Your task to perform on an android device: Play the latest video from the BBC Image 0: 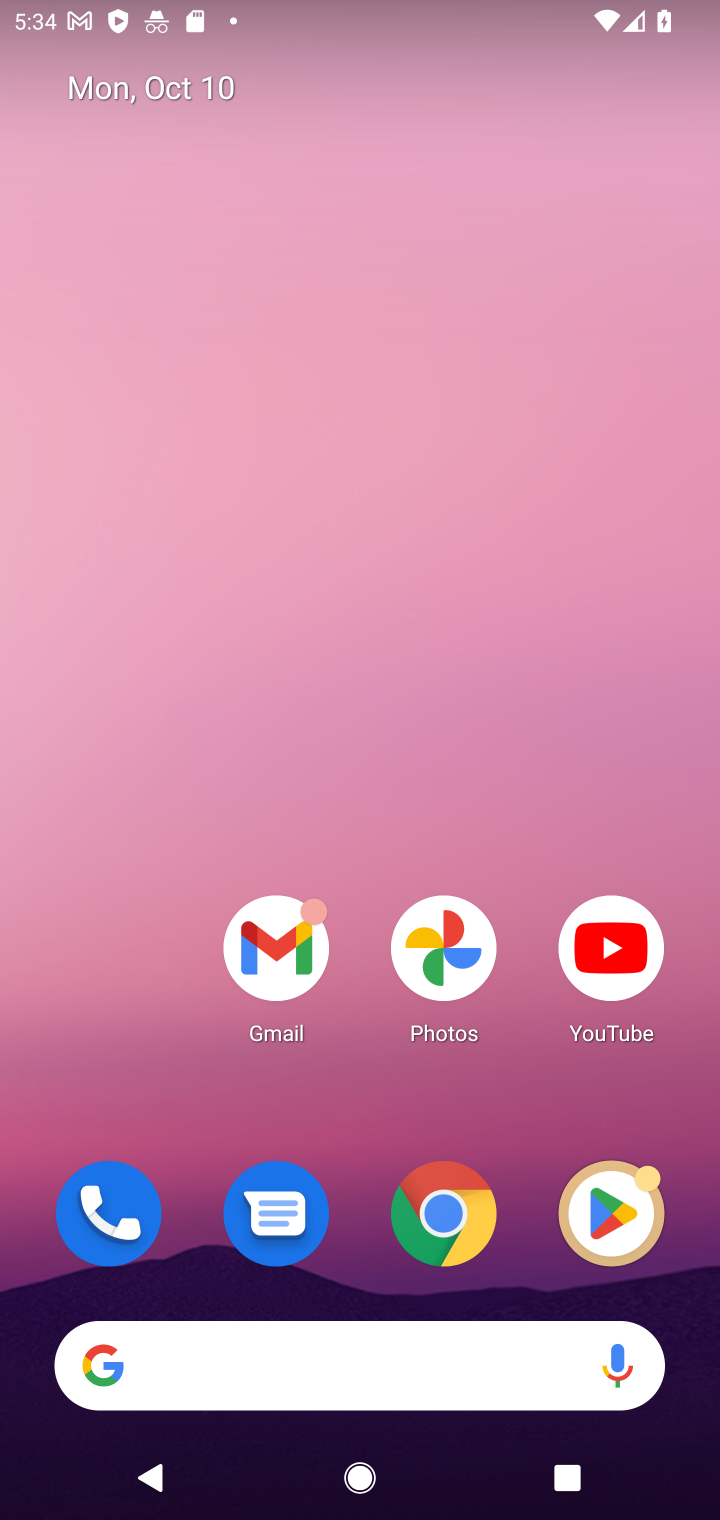
Step 0: click (603, 929)
Your task to perform on an android device: Play the latest video from the BBC Image 1: 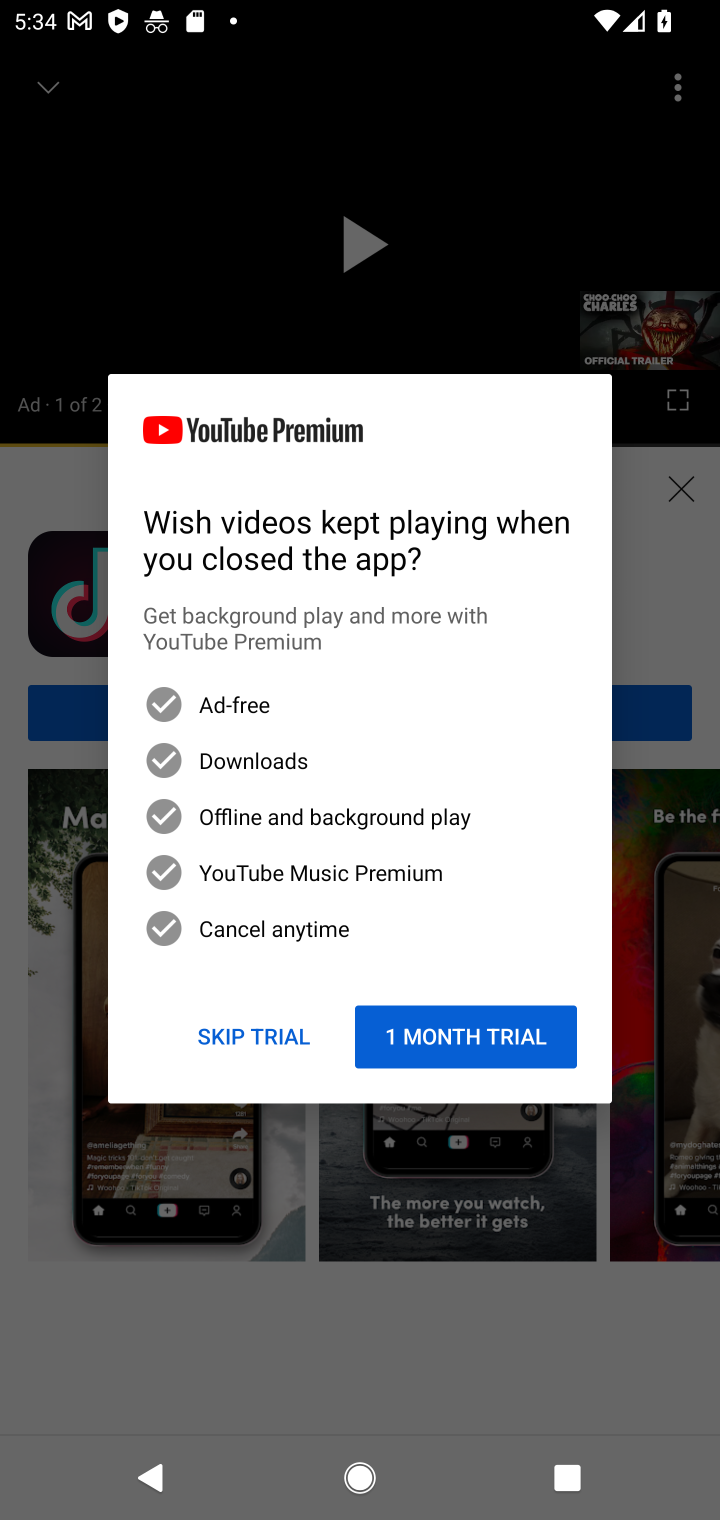
Step 1: click (257, 1044)
Your task to perform on an android device: Play the latest video from the BBC Image 2: 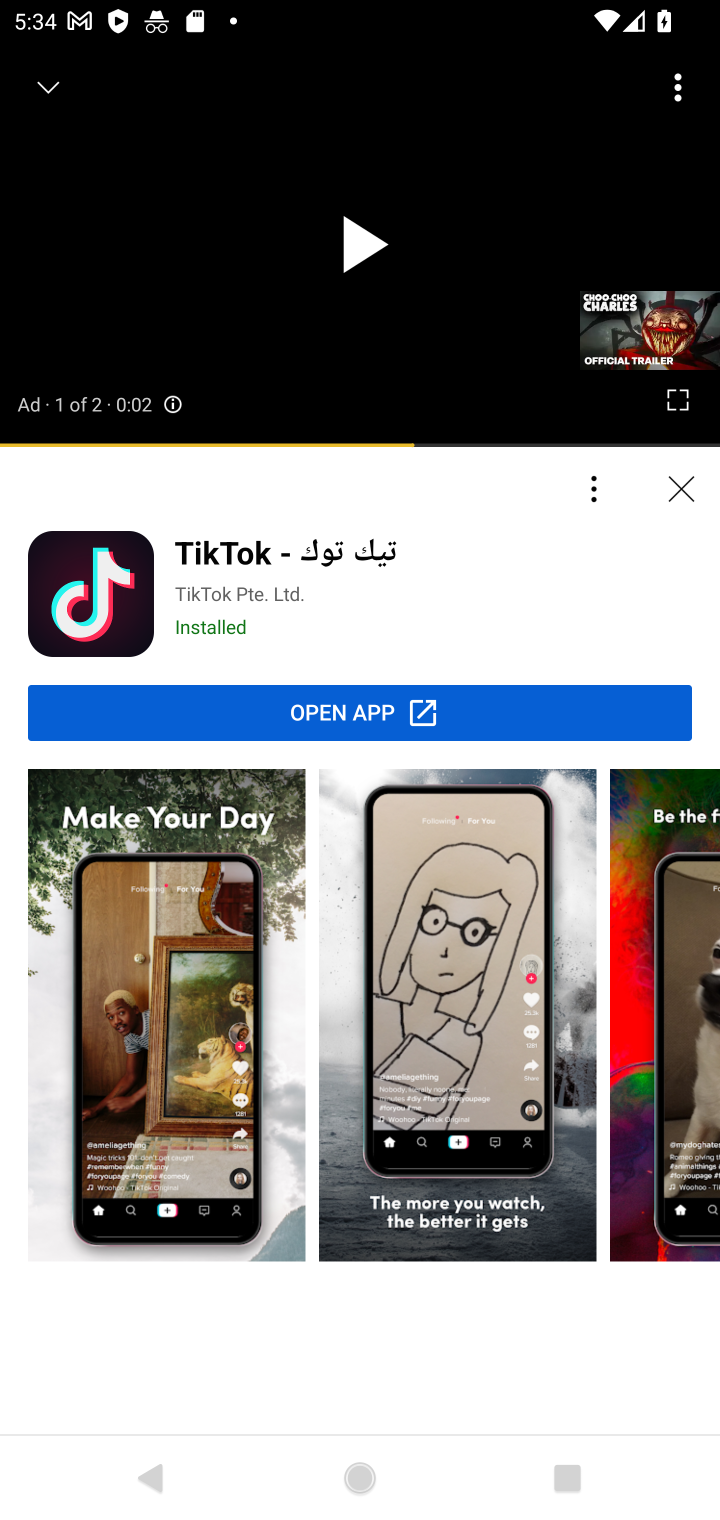
Step 2: click (59, 88)
Your task to perform on an android device: Play the latest video from the BBC Image 3: 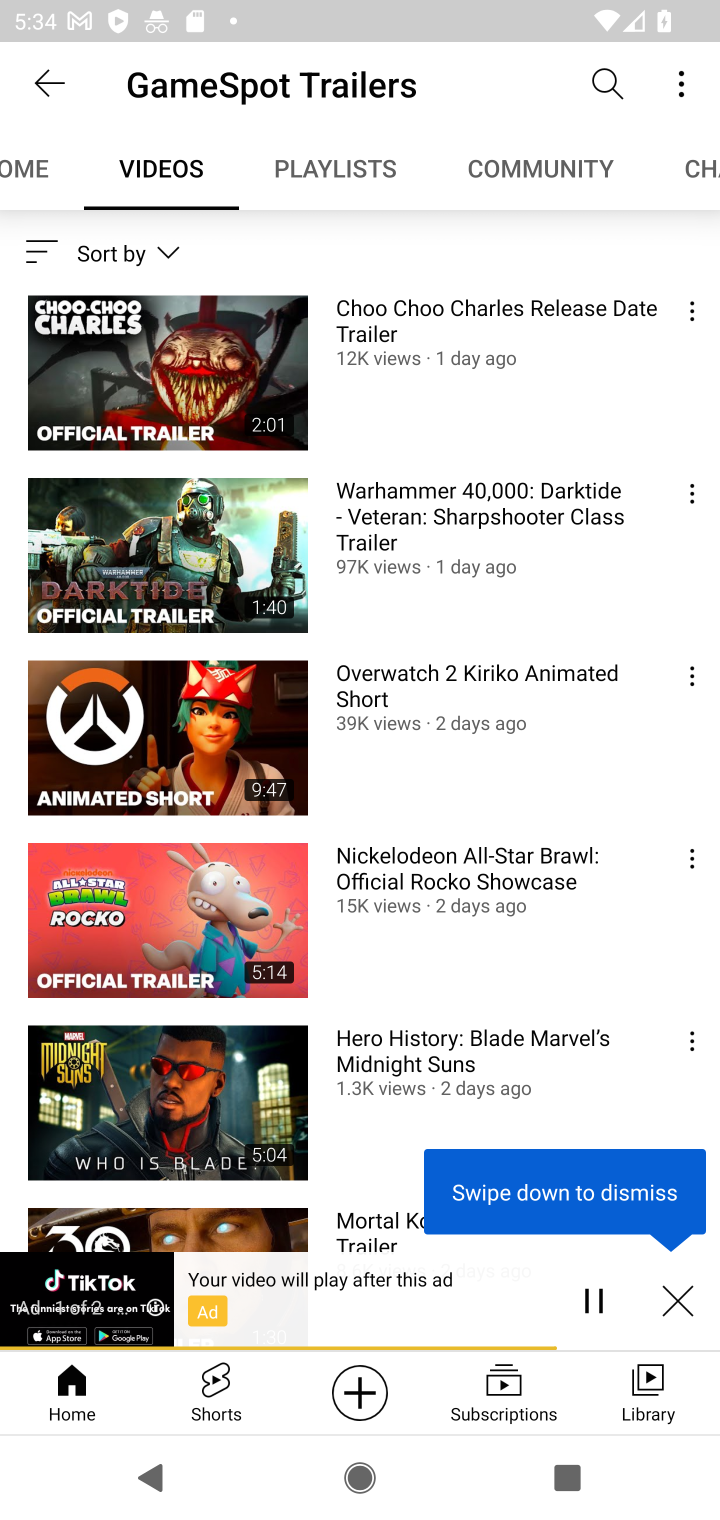
Step 3: click (622, 72)
Your task to perform on an android device: Play the latest video from the BBC Image 4: 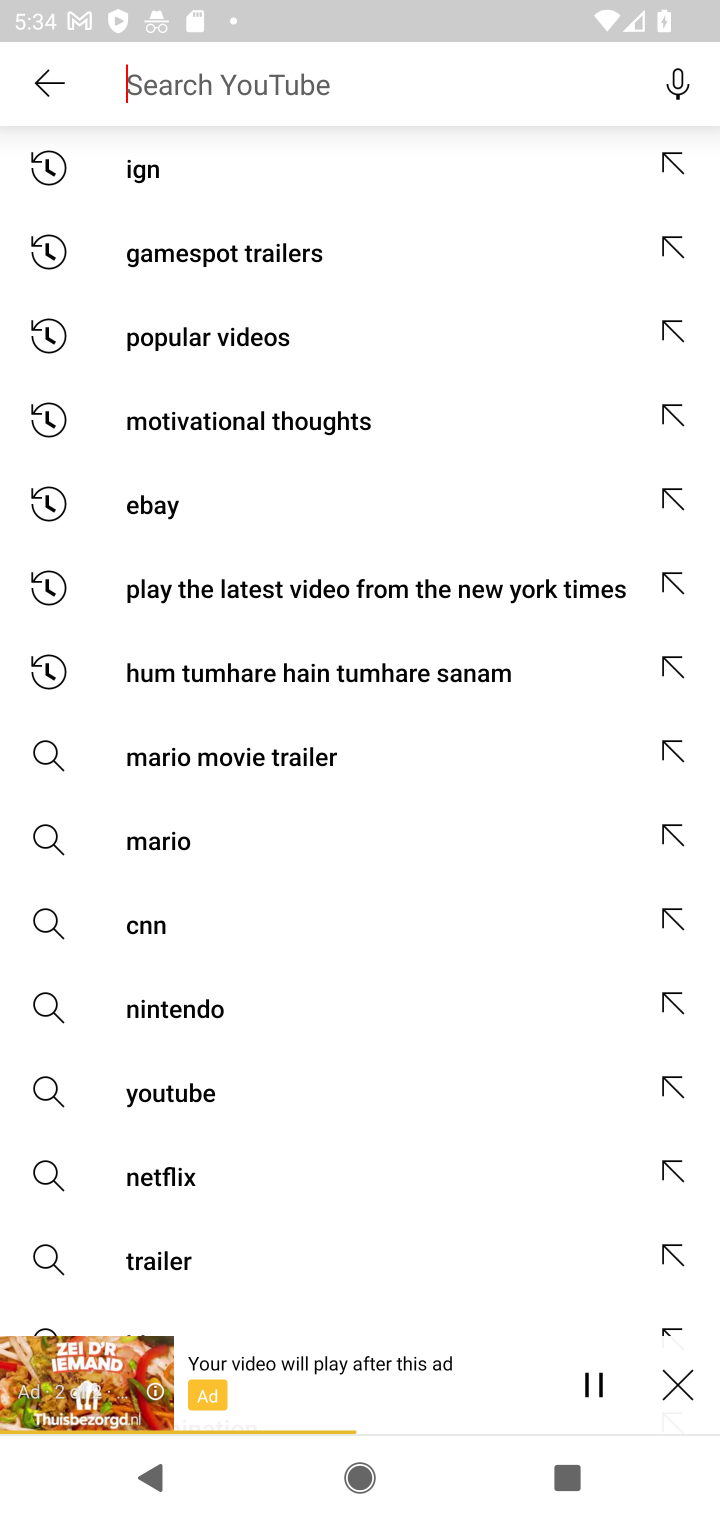
Step 4: click (197, 58)
Your task to perform on an android device: Play the latest video from the BBC Image 5: 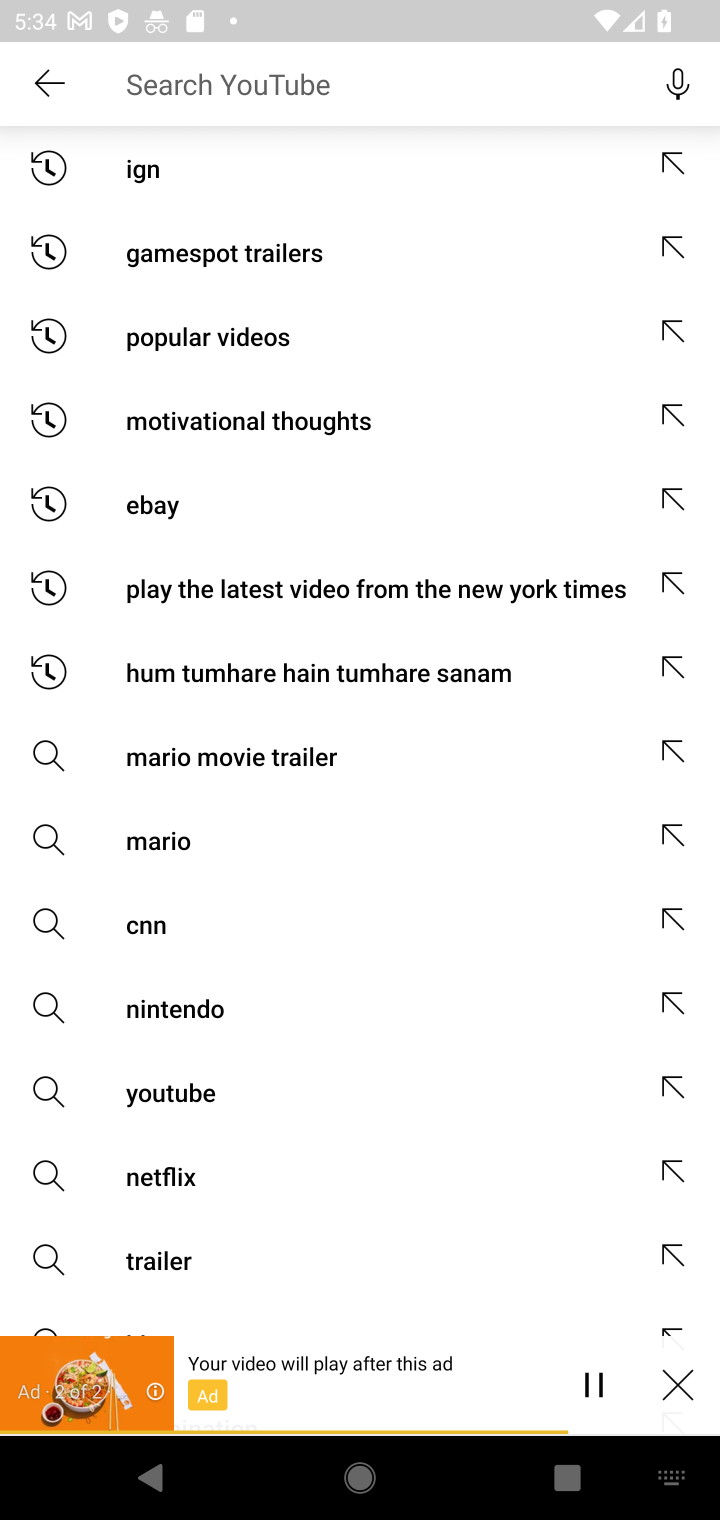
Step 5: type "BBC"
Your task to perform on an android device: Play the latest video from the BBC Image 6: 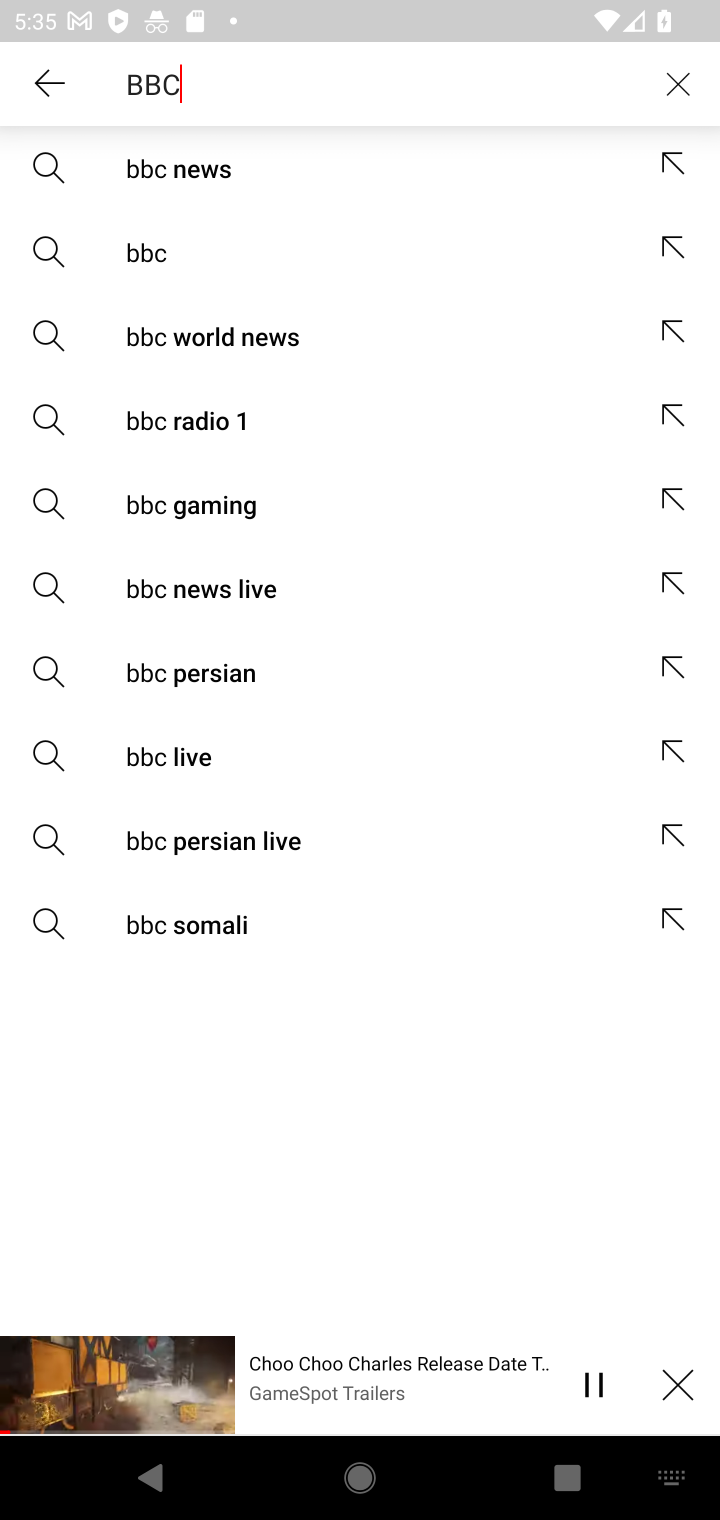
Step 6: click (187, 236)
Your task to perform on an android device: Play the latest video from the BBC Image 7: 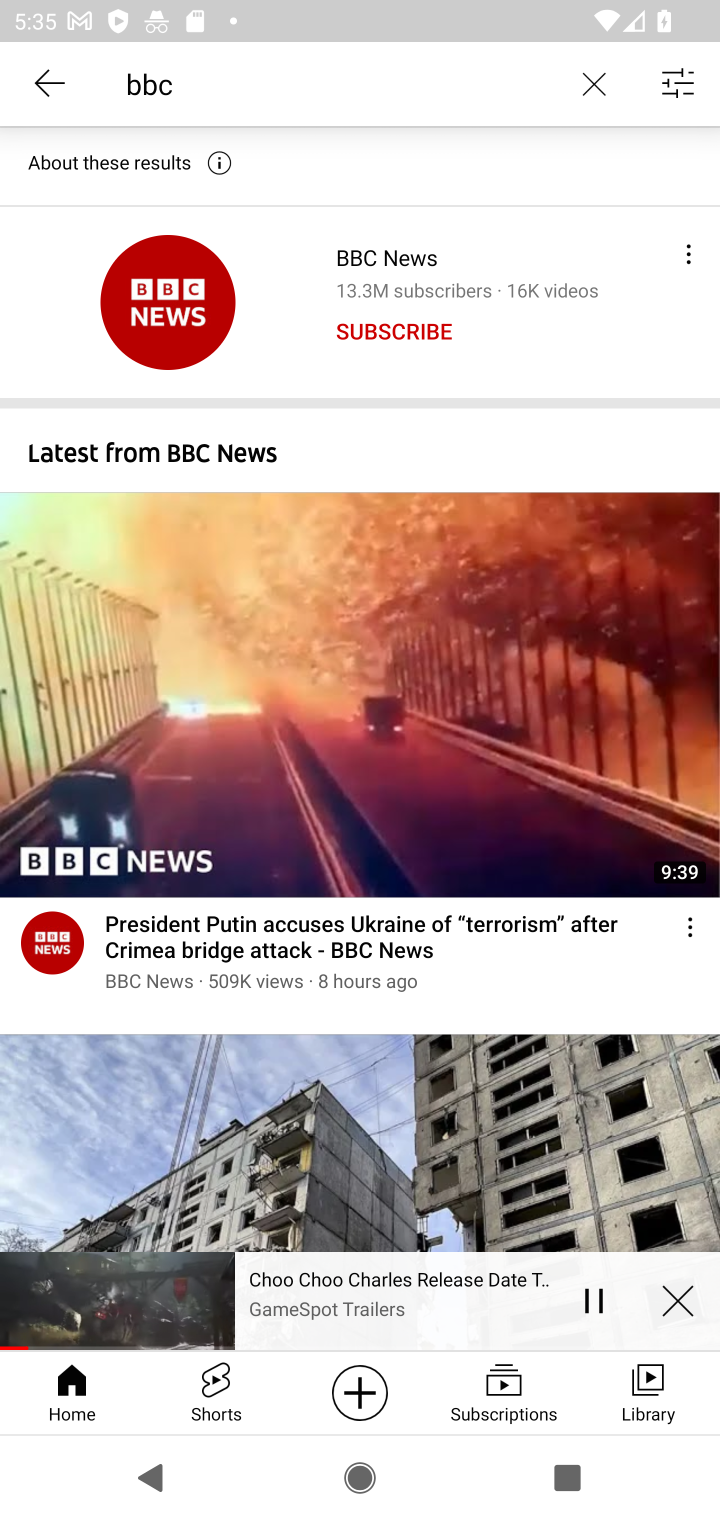
Step 7: click (389, 272)
Your task to perform on an android device: Play the latest video from the BBC Image 8: 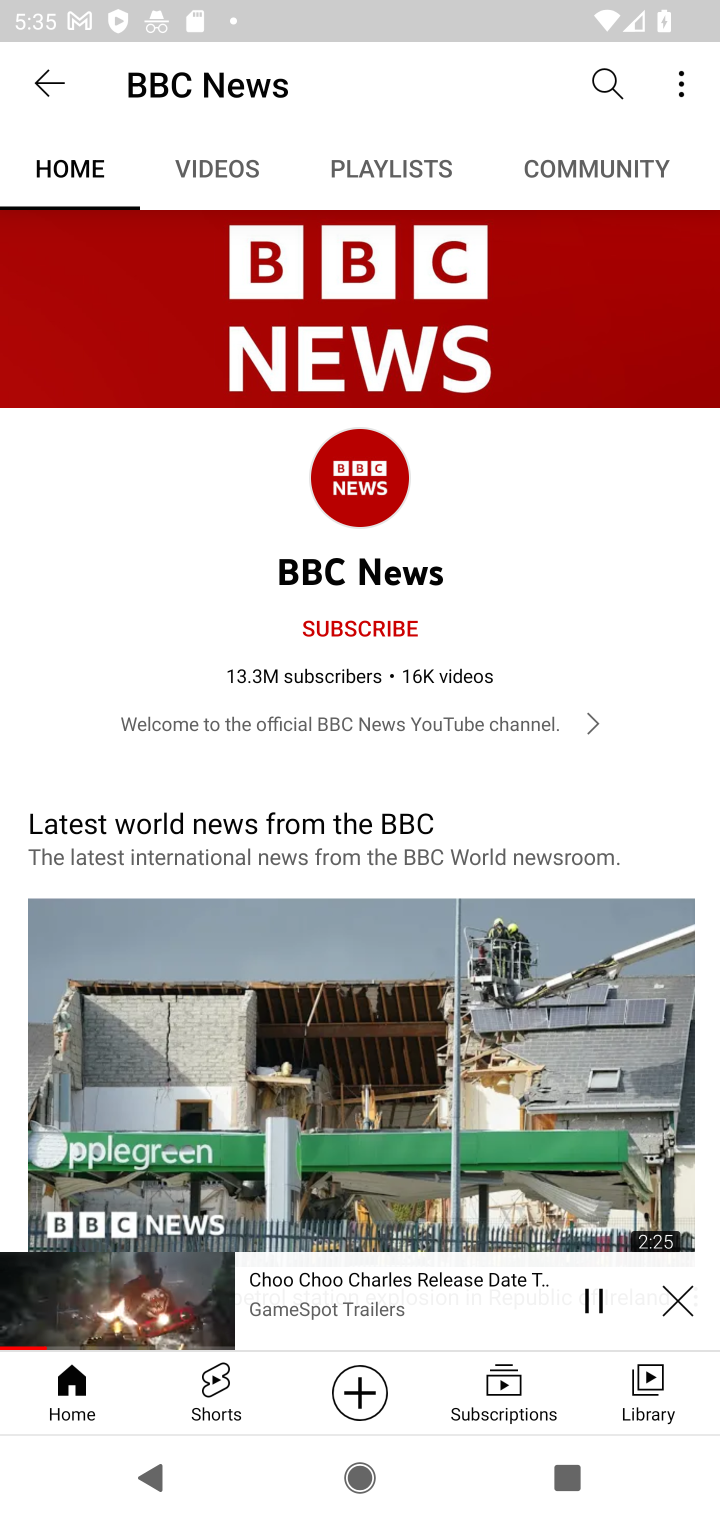
Step 8: click (191, 155)
Your task to perform on an android device: Play the latest video from the BBC Image 9: 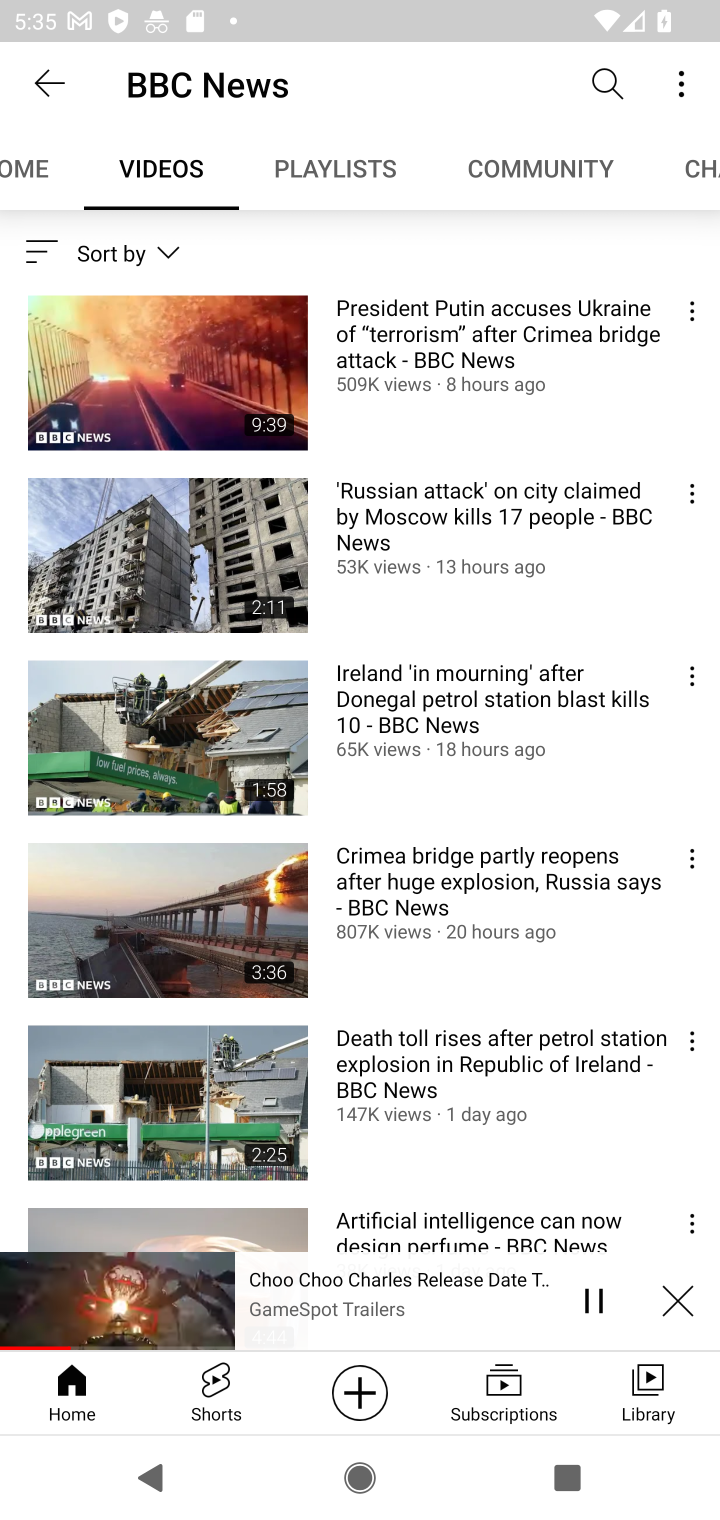
Step 9: click (186, 382)
Your task to perform on an android device: Play the latest video from the BBC Image 10: 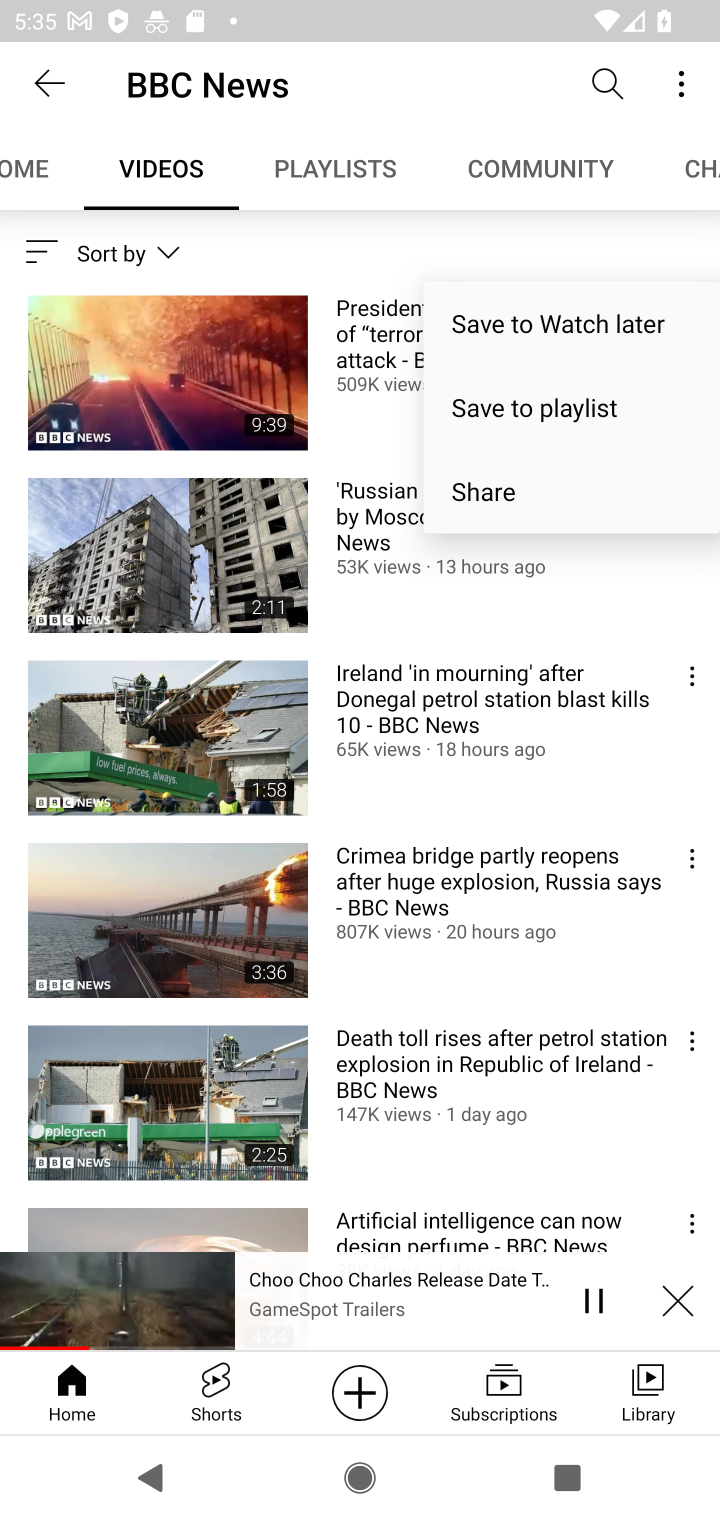
Step 10: click (208, 384)
Your task to perform on an android device: Play the latest video from the BBC Image 11: 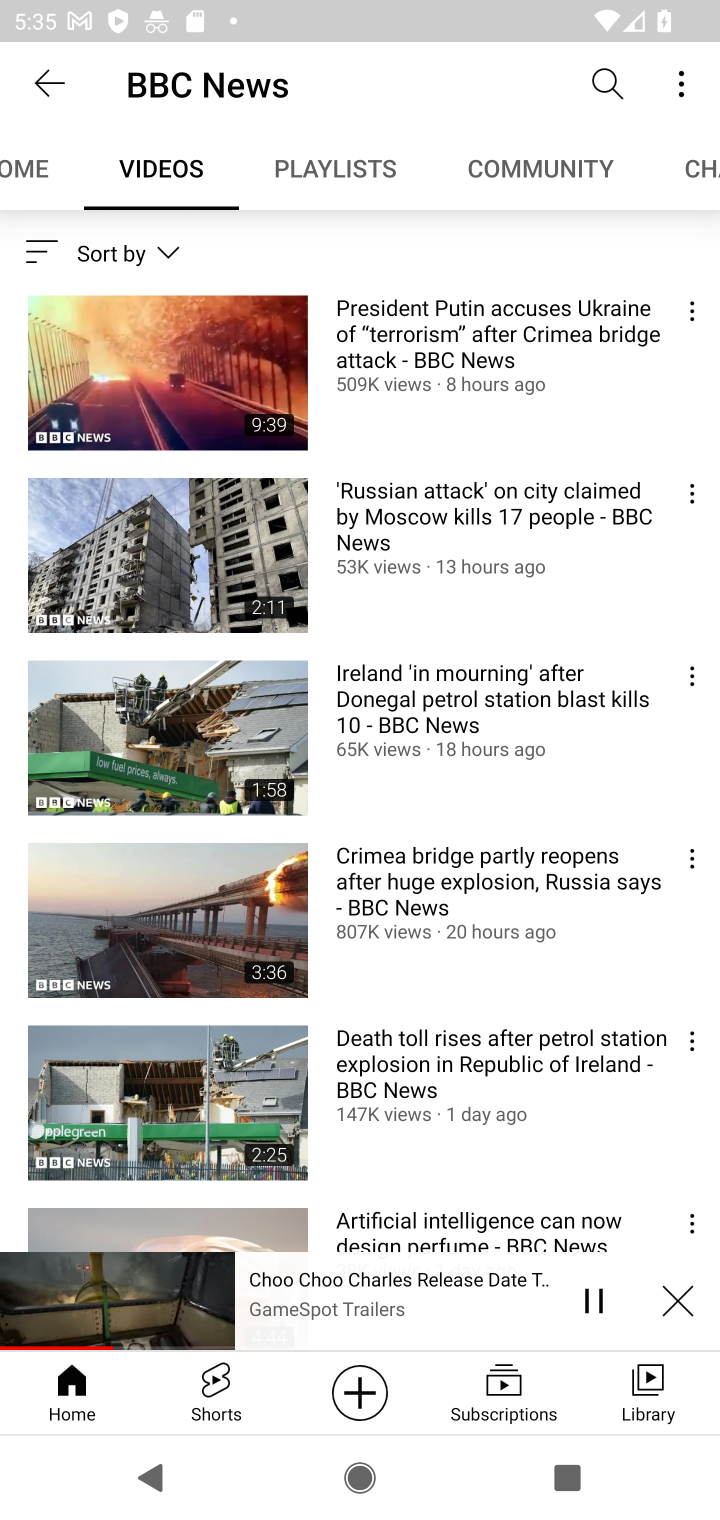
Step 11: click (177, 377)
Your task to perform on an android device: Play the latest video from the BBC Image 12: 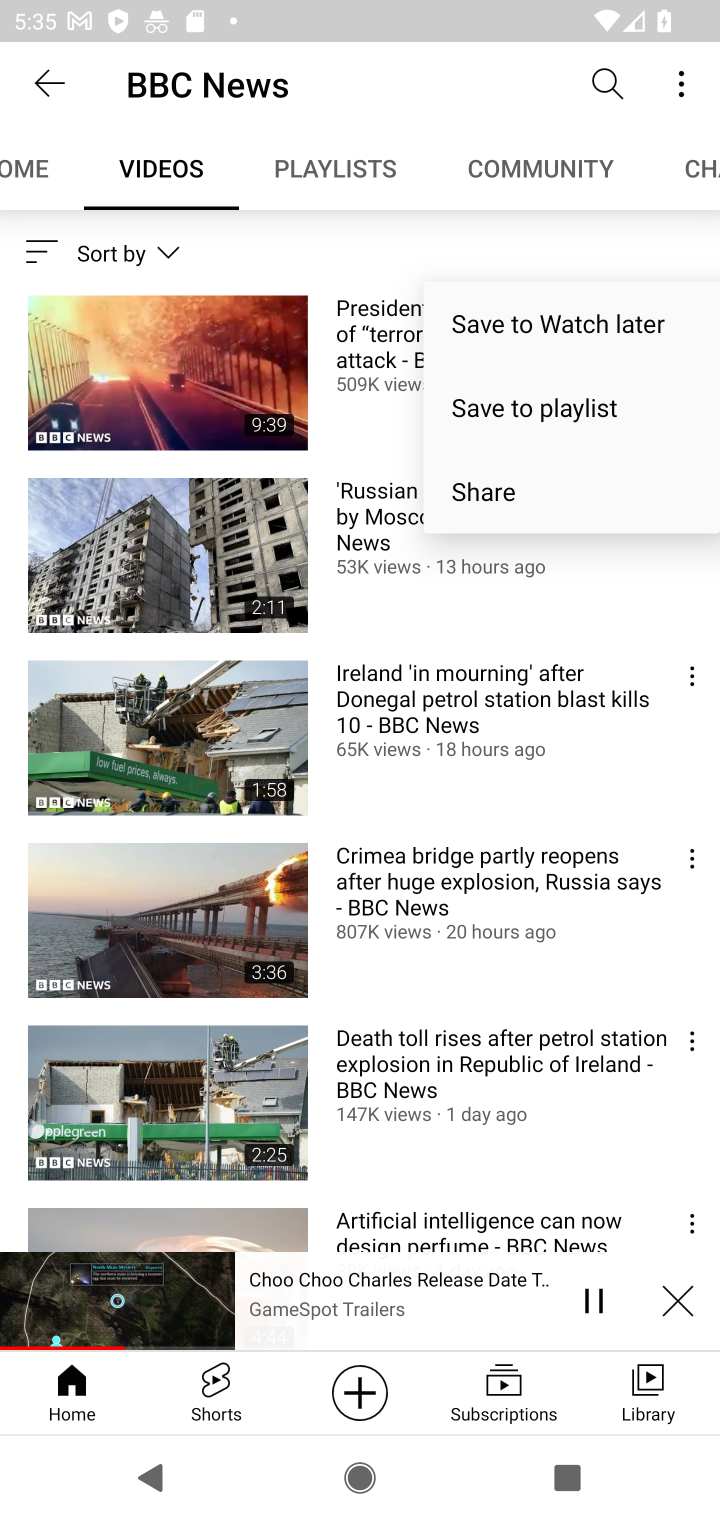
Step 12: click (186, 368)
Your task to perform on an android device: Play the latest video from the BBC Image 13: 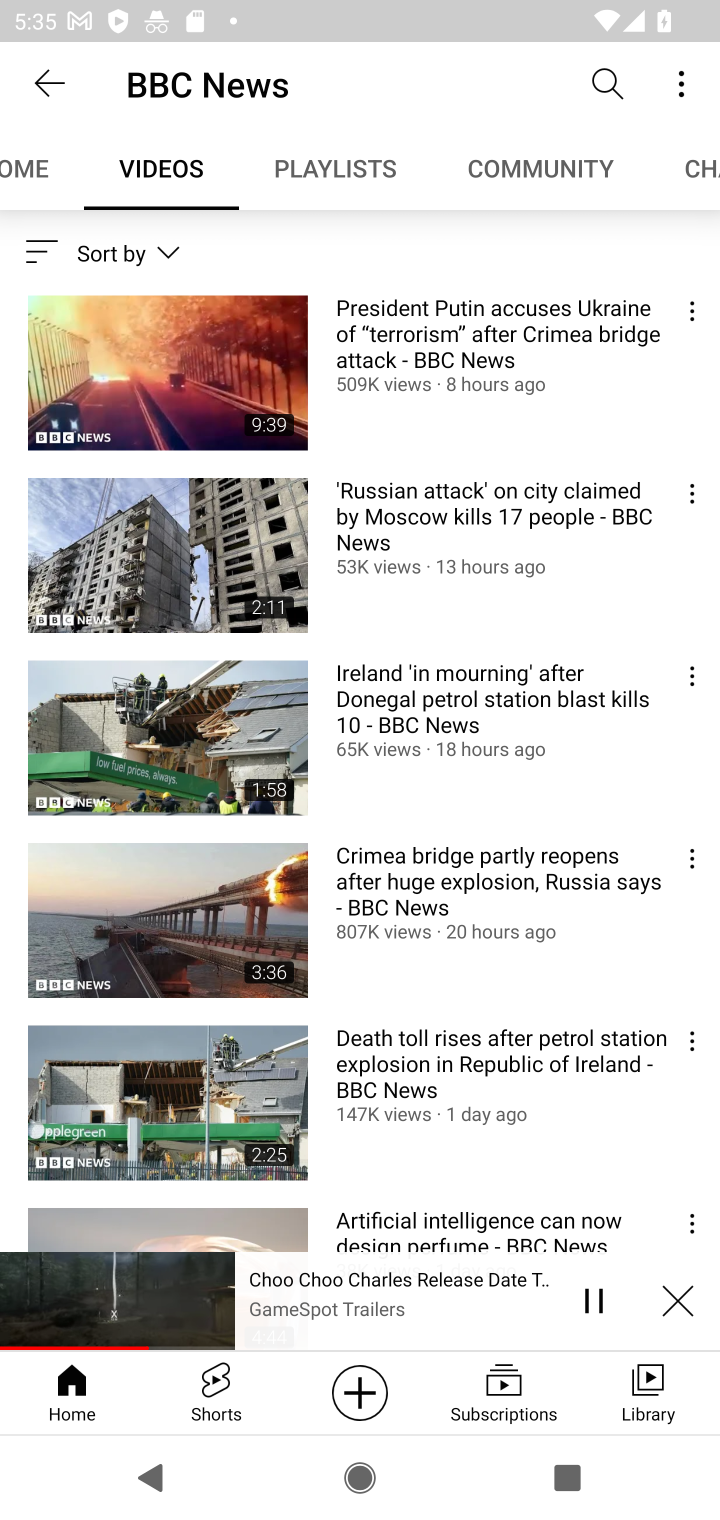
Step 13: click (175, 390)
Your task to perform on an android device: Play the latest video from the BBC Image 14: 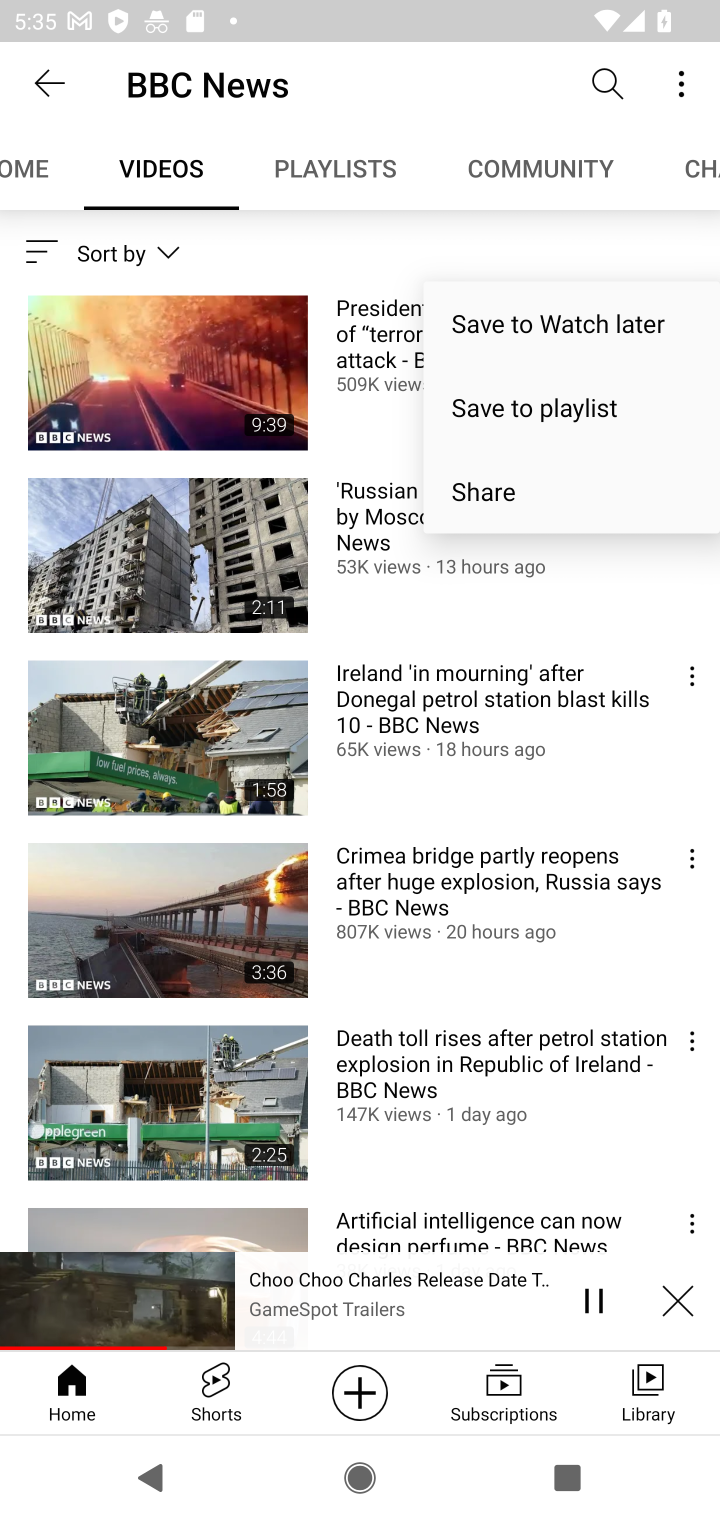
Step 14: click (214, 352)
Your task to perform on an android device: Play the latest video from the BBC Image 15: 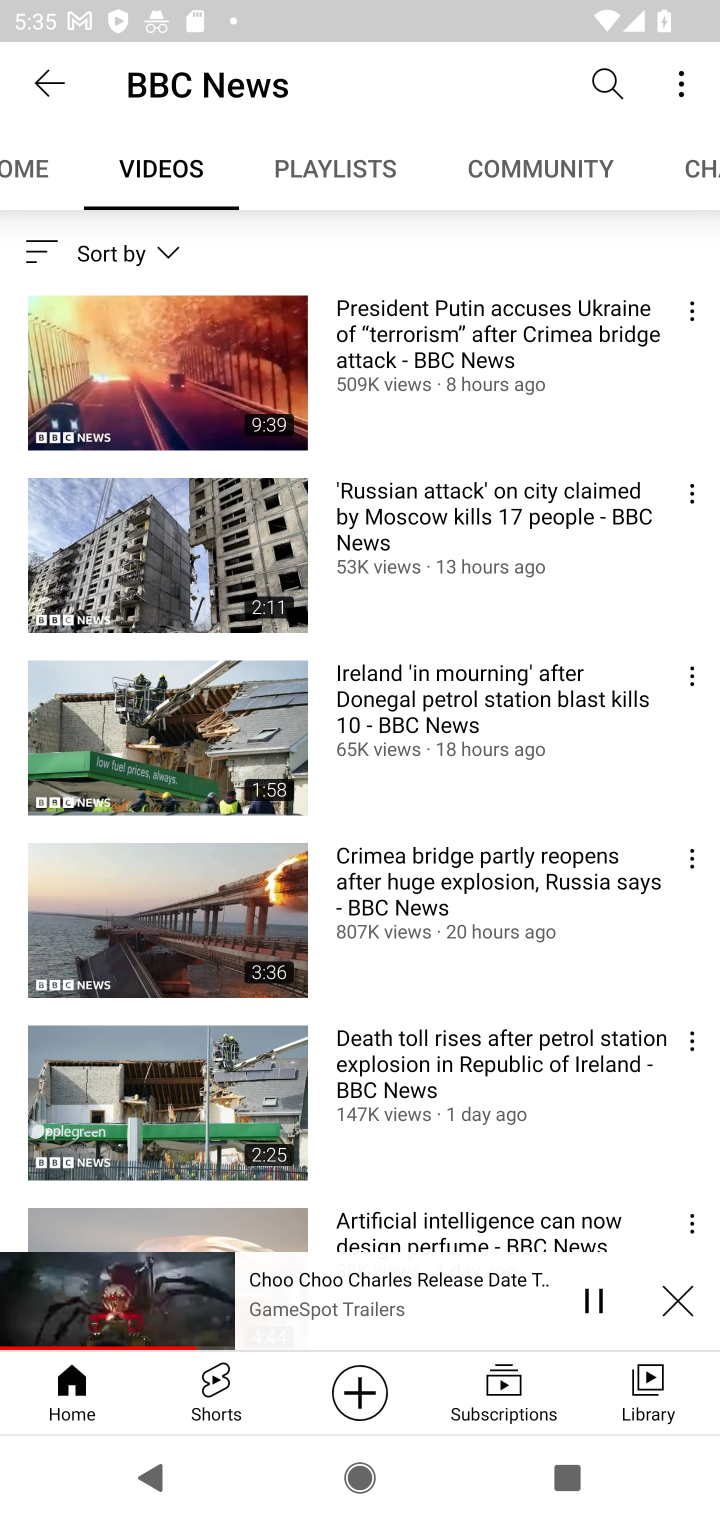
Step 15: click (184, 365)
Your task to perform on an android device: Play the latest video from the BBC Image 16: 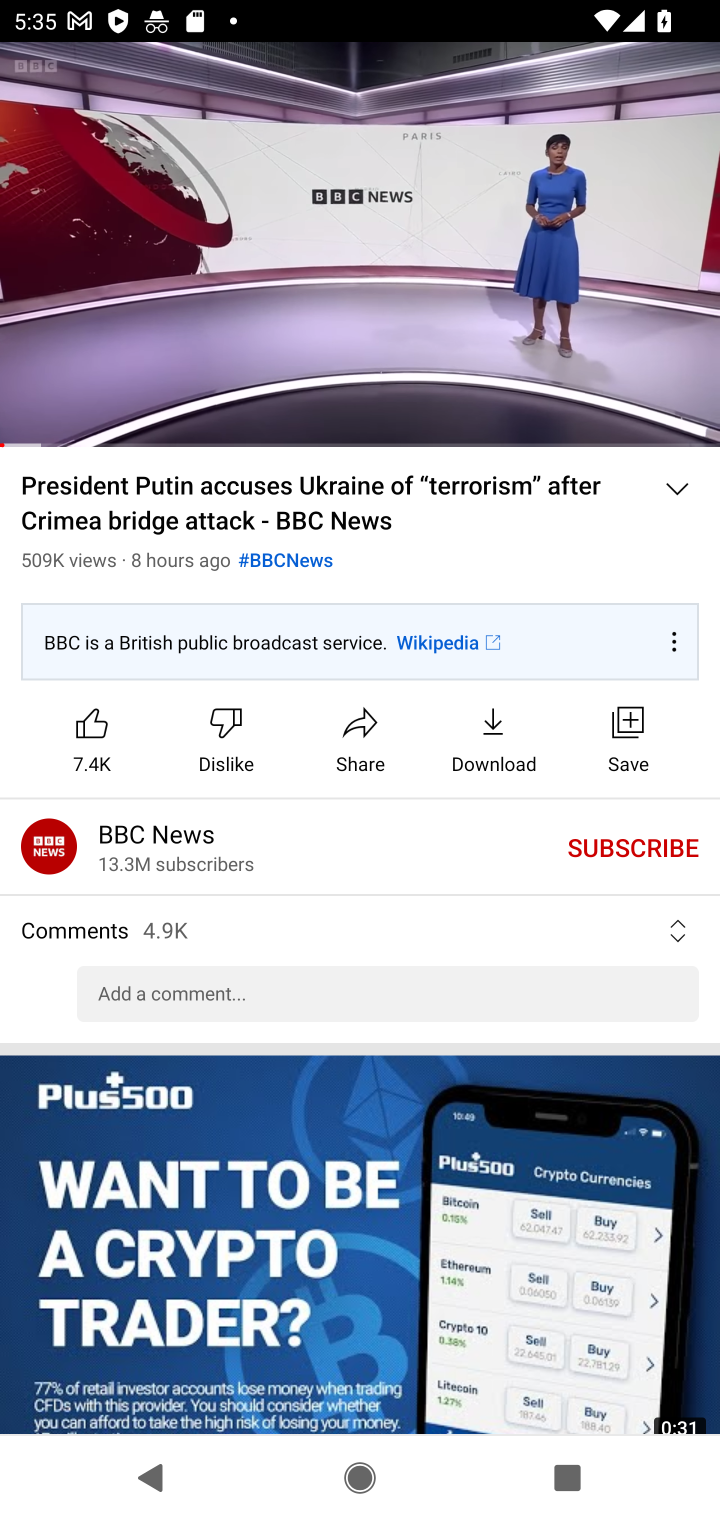
Step 16: click (261, 261)
Your task to perform on an android device: Play the latest video from the BBC Image 17: 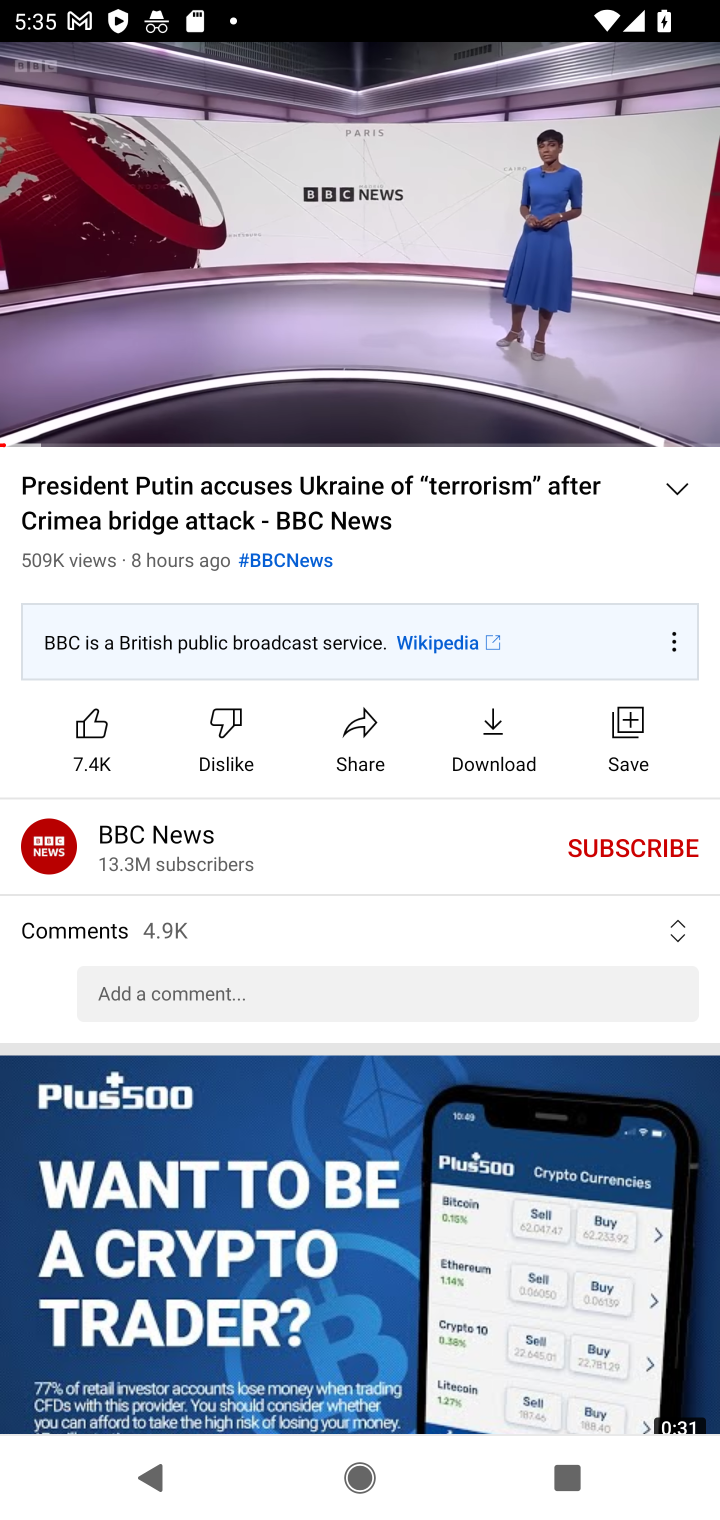
Step 17: task complete